Your task to perform on an android device: turn on sleep mode Image 0: 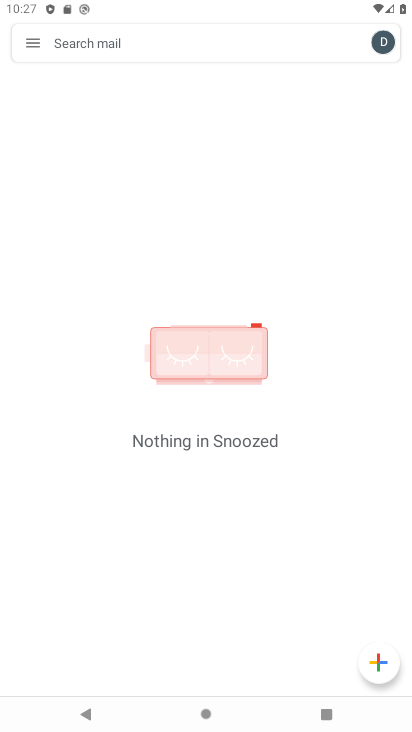
Step 0: press back button
Your task to perform on an android device: turn on sleep mode Image 1: 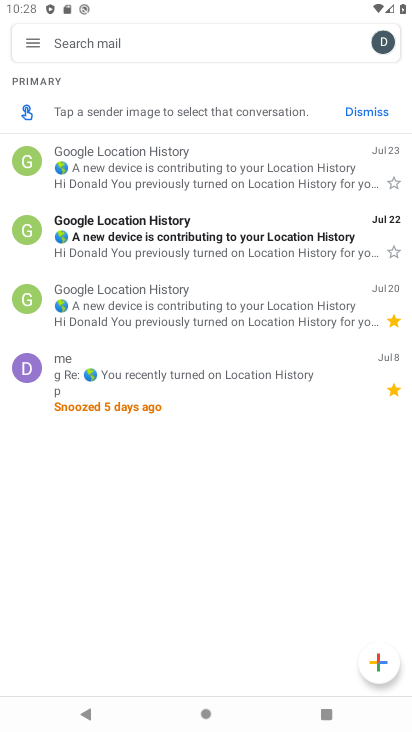
Step 1: press back button
Your task to perform on an android device: turn on sleep mode Image 2: 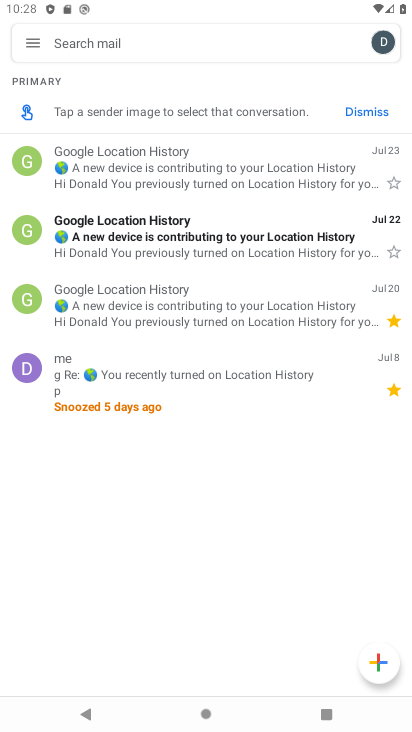
Step 2: press back button
Your task to perform on an android device: turn on sleep mode Image 3: 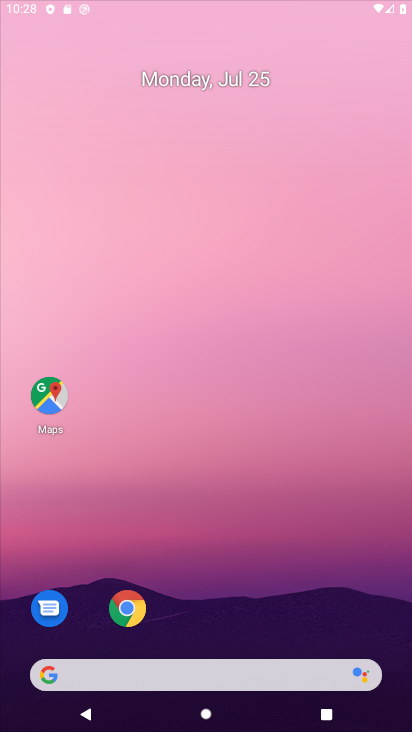
Step 3: press back button
Your task to perform on an android device: turn on sleep mode Image 4: 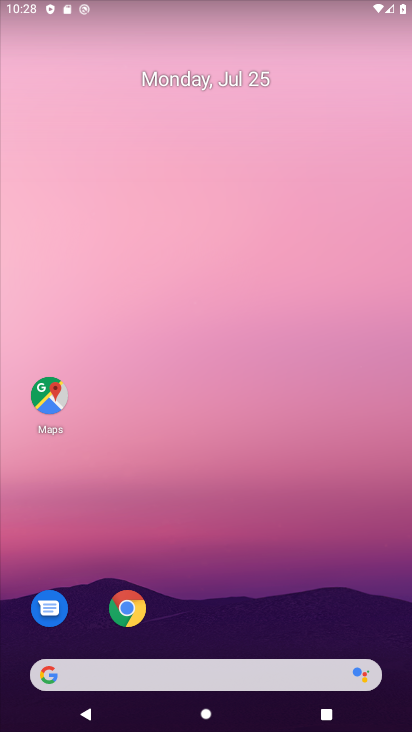
Step 4: drag from (202, 539) to (100, 68)
Your task to perform on an android device: turn on sleep mode Image 5: 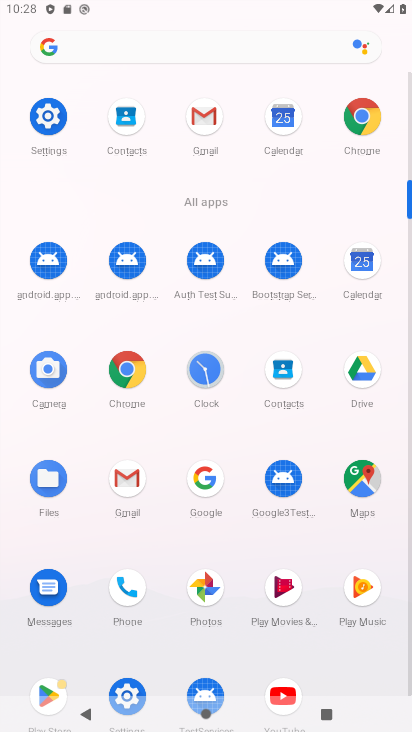
Step 5: click (52, 121)
Your task to perform on an android device: turn on sleep mode Image 6: 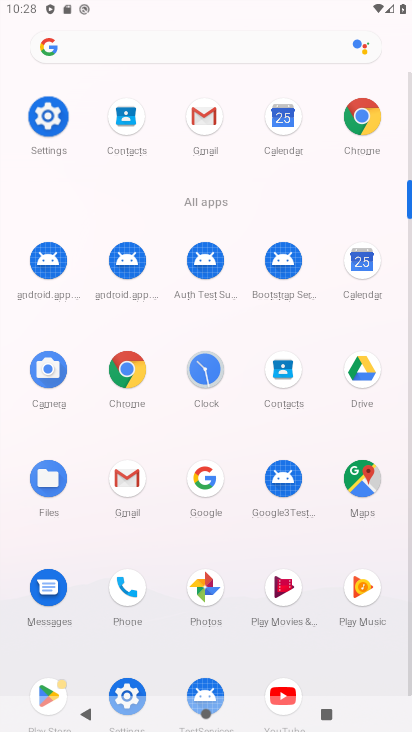
Step 6: click (52, 121)
Your task to perform on an android device: turn on sleep mode Image 7: 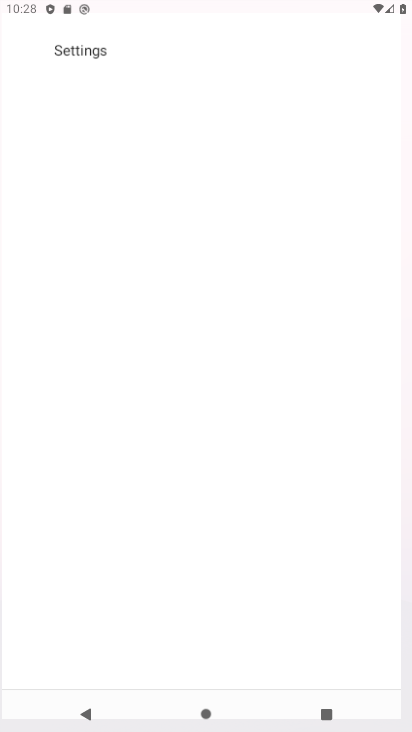
Step 7: click (51, 120)
Your task to perform on an android device: turn on sleep mode Image 8: 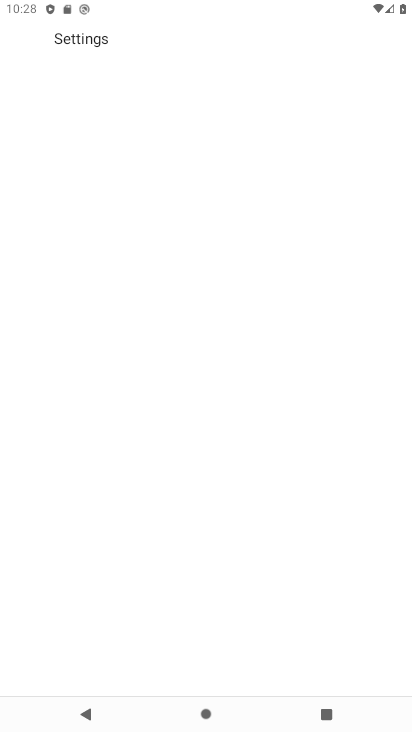
Step 8: click (50, 119)
Your task to perform on an android device: turn on sleep mode Image 9: 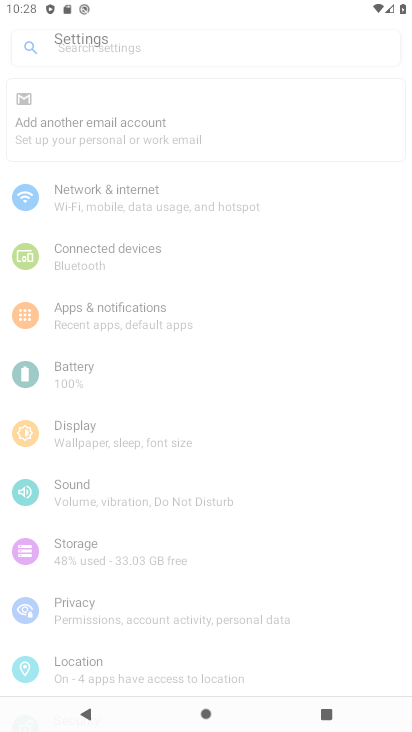
Step 9: click (51, 119)
Your task to perform on an android device: turn on sleep mode Image 10: 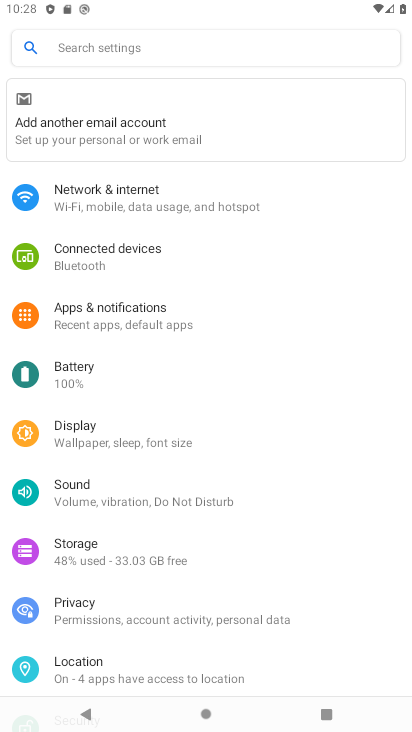
Step 10: click (102, 441)
Your task to perform on an android device: turn on sleep mode Image 11: 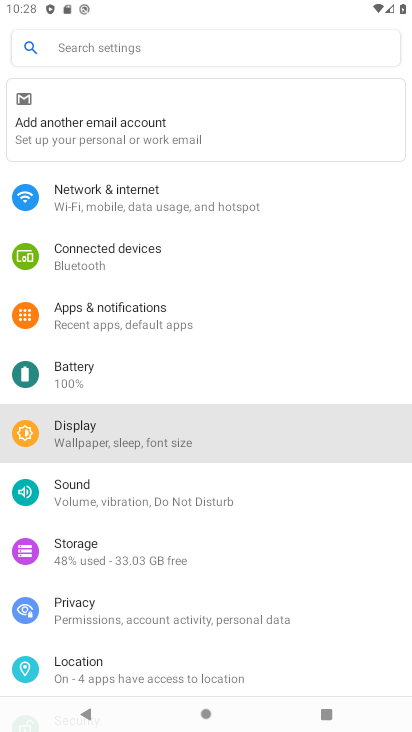
Step 11: click (102, 441)
Your task to perform on an android device: turn on sleep mode Image 12: 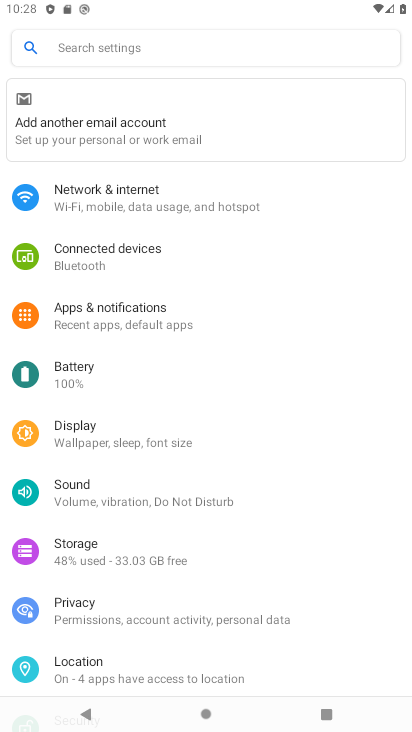
Step 12: click (102, 441)
Your task to perform on an android device: turn on sleep mode Image 13: 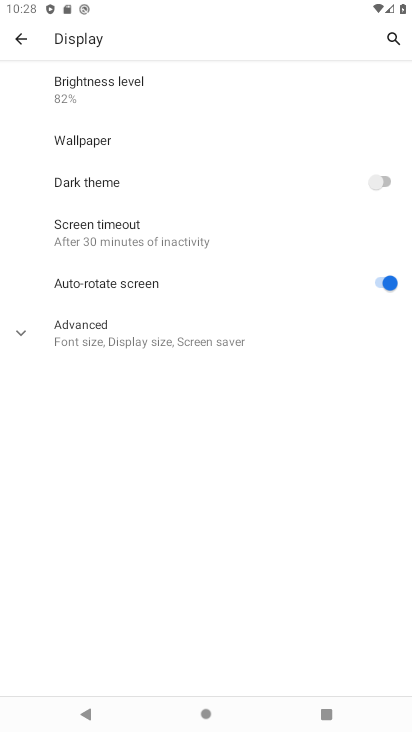
Step 13: click (105, 328)
Your task to perform on an android device: turn on sleep mode Image 14: 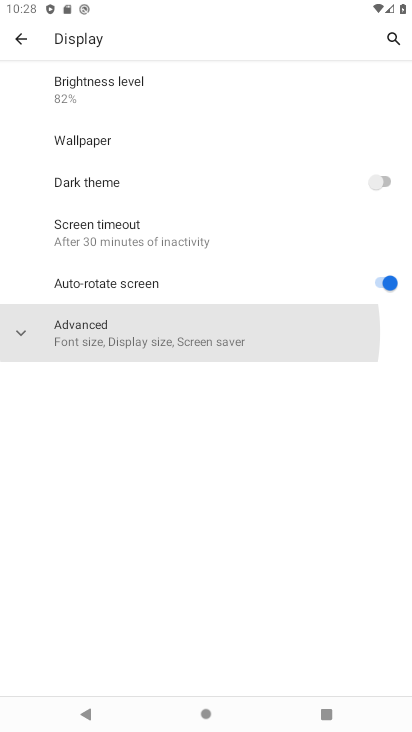
Step 14: click (105, 328)
Your task to perform on an android device: turn on sleep mode Image 15: 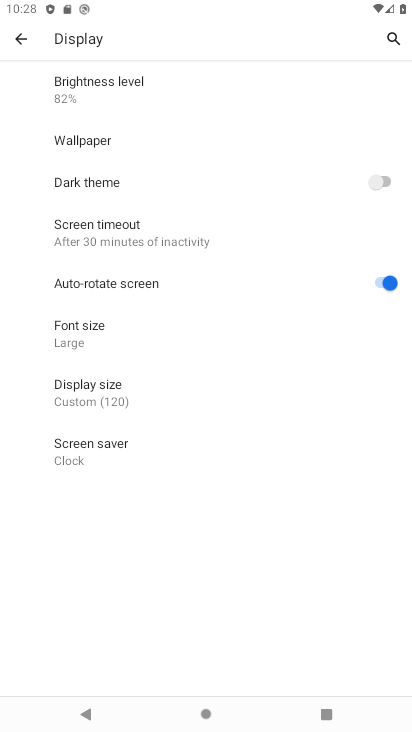
Step 15: click (103, 324)
Your task to perform on an android device: turn on sleep mode Image 16: 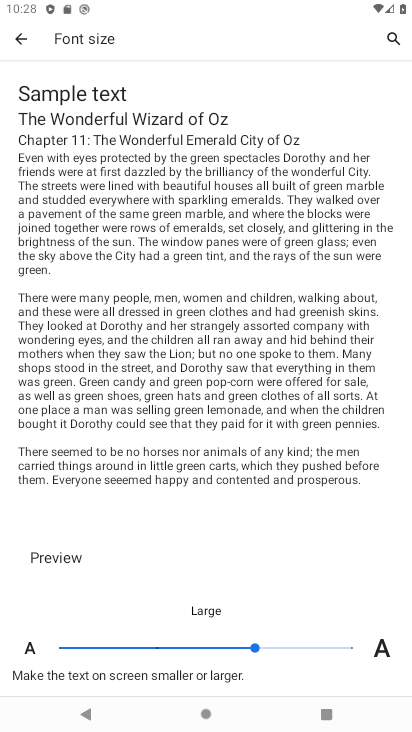
Step 16: click (17, 40)
Your task to perform on an android device: turn on sleep mode Image 17: 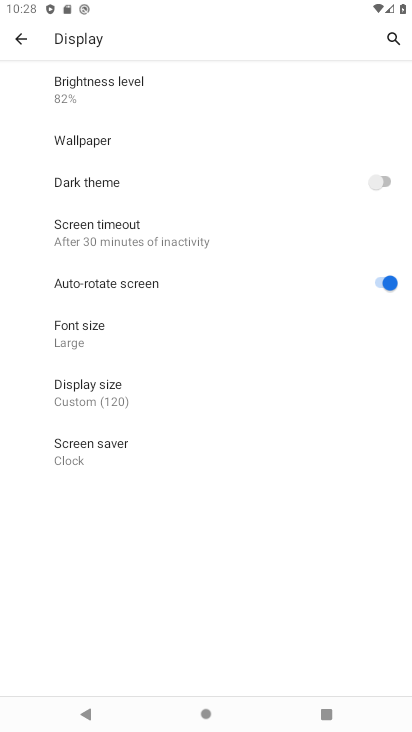
Step 17: click (23, 38)
Your task to perform on an android device: turn on sleep mode Image 18: 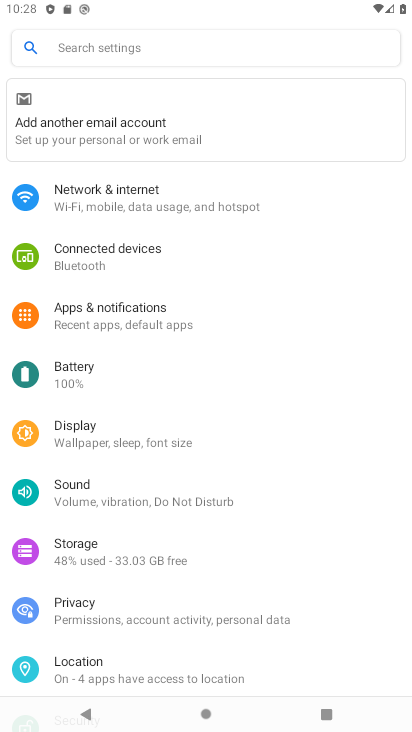
Step 18: task complete